Your task to perform on an android device: Play the last video I watched on Youtube Image 0: 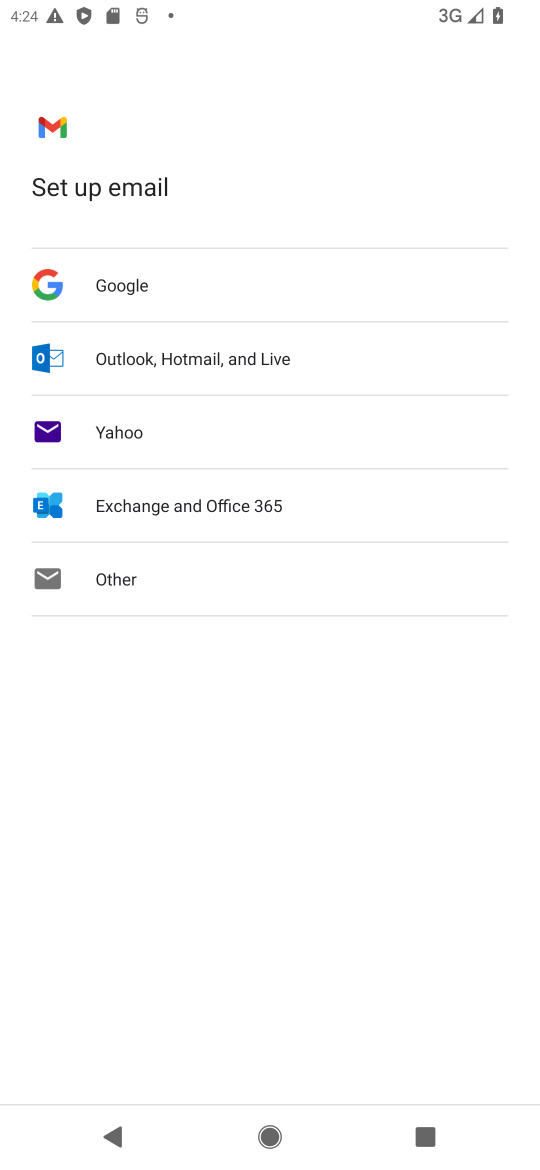
Step 0: task complete